Your task to perform on an android device: Open Google Maps Image 0: 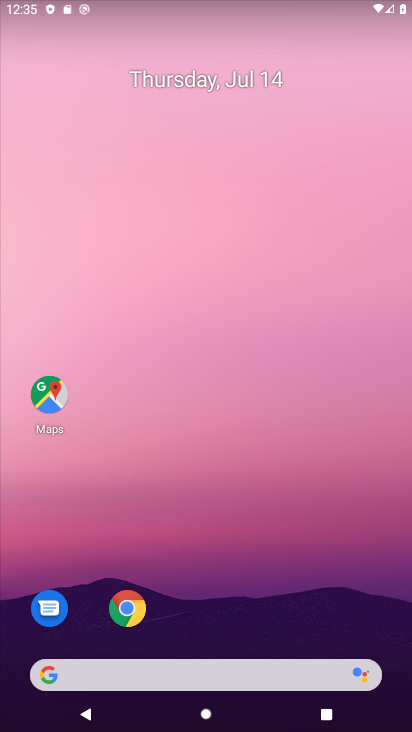
Step 0: press home button
Your task to perform on an android device: Open Google Maps Image 1: 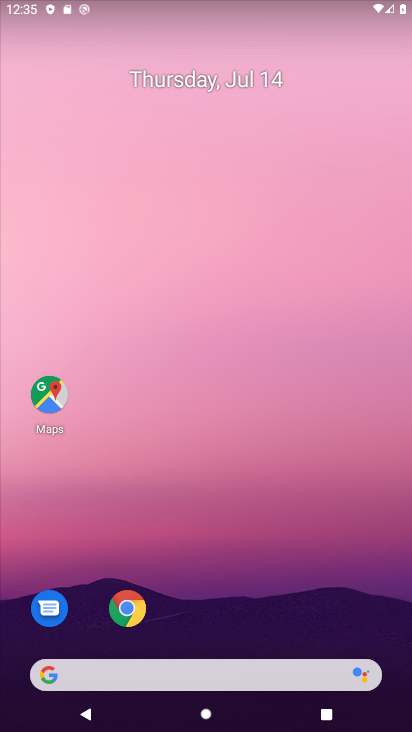
Step 1: drag from (232, 635) to (229, 123)
Your task to perform on an android device: Open Google Maps Image 2: 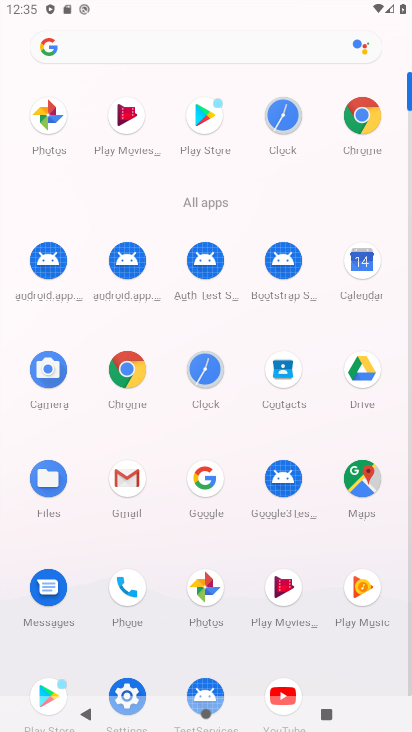
Step 2: click (384, 484)
Your task to perform on an android device: Open Google Maps Image 3: 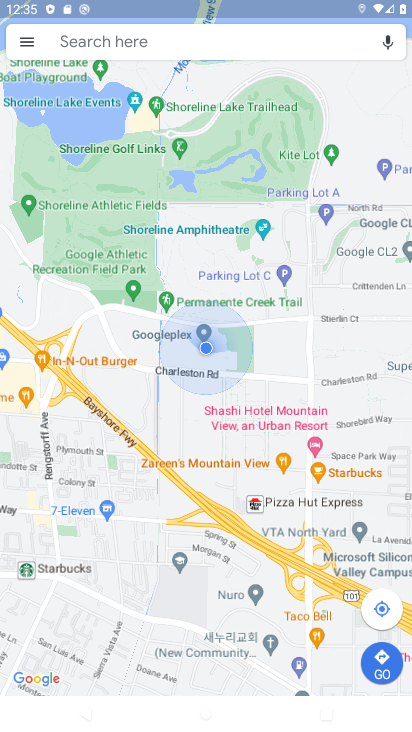
Step 3: task complete